Your task to perform on an android device: clear all cookies in the chrome app Image 0: 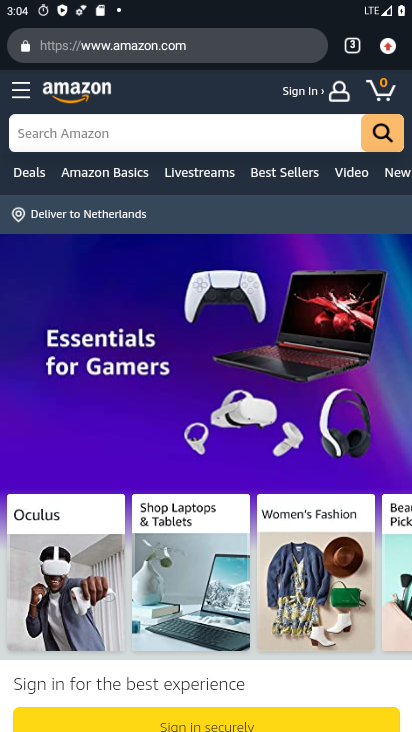
Step 0: click (390, 42)
Your task to perform on an android device: clear all cookies in the chrome app Image 1: 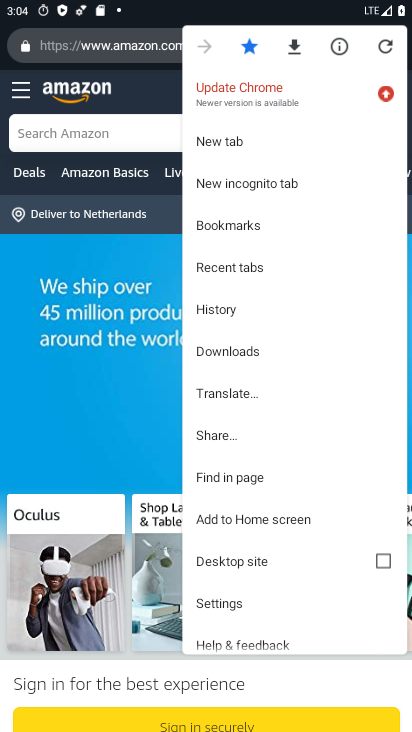
Step 1: click (228, 308)
Your task to perform on an android device: clear all cookies in the chrome app Image 2: 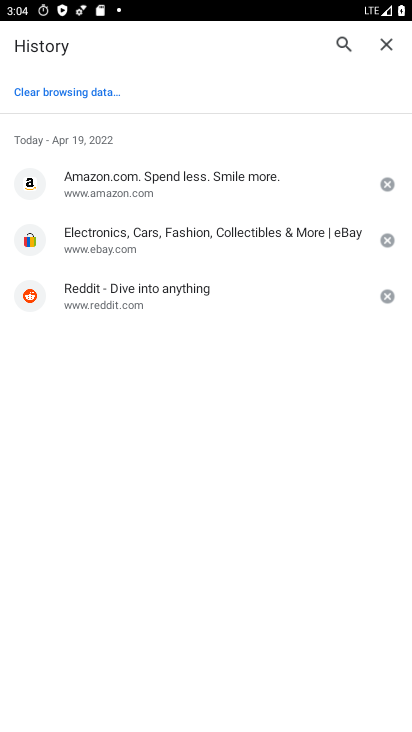
Step 2: click (82, 92)
Your task to perform on an android device: clear all cookies in the chrome app Image 3: 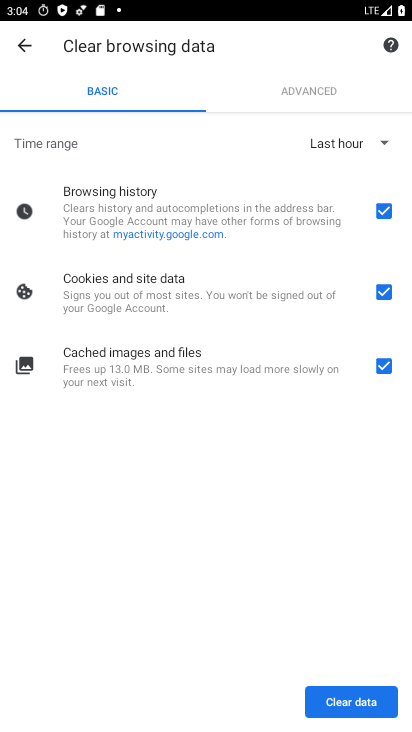
Step 3: click (379, 212)
Your task to perform on an android device: clear all cookies in the chrome app Image 4: 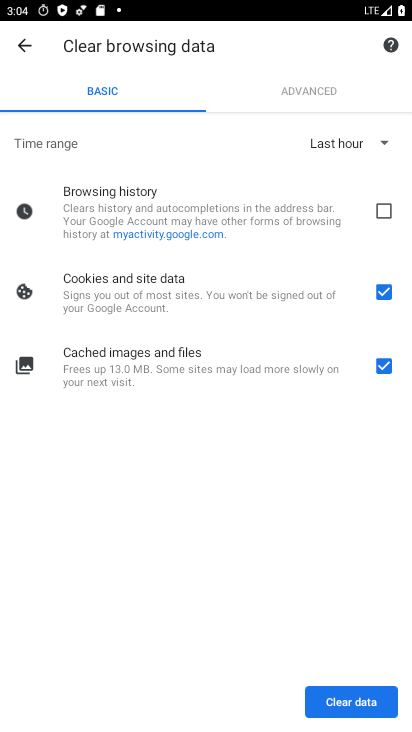
Step 4: click (383, 370)
Your task to perform on an android device: clear all cookies in the chrome app Image 5: 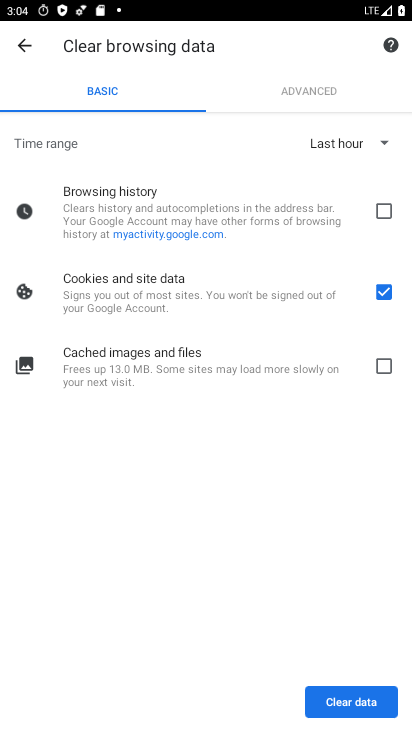
Step 5: click (374, 703)
Your task to perform on an android device: clear all cookies in the chrome app Image 6: 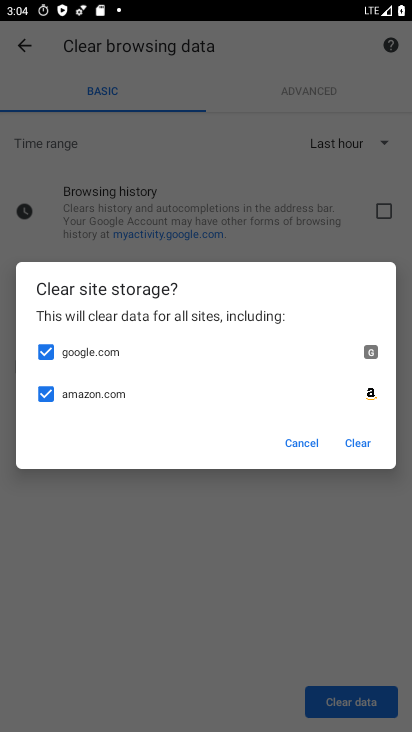
Step 6: click (349, 437)
Your task to perform on an android device: clear all cookies in the chrome app Image 7: 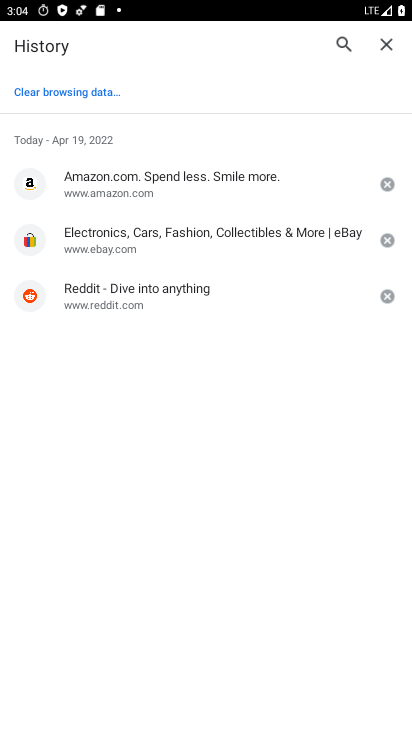
Step 7: task complete